Your task to perform on an android device: Open calendar and show me the second week of next month Image 0: 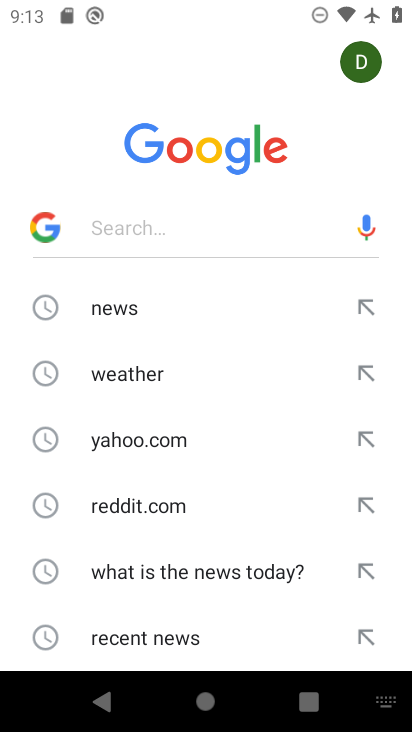
Step 0: press home button
Your task to perform on an android device: Open calendar and show me the second week of next month Image 1: 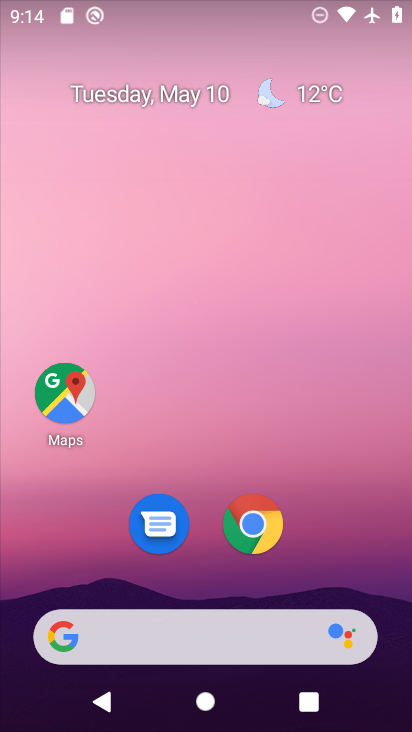
Step 1: drag from (323, 462) to (308, 25)
Your task to perform on an android device: Open calendar and show me the second week of next month Image 2: 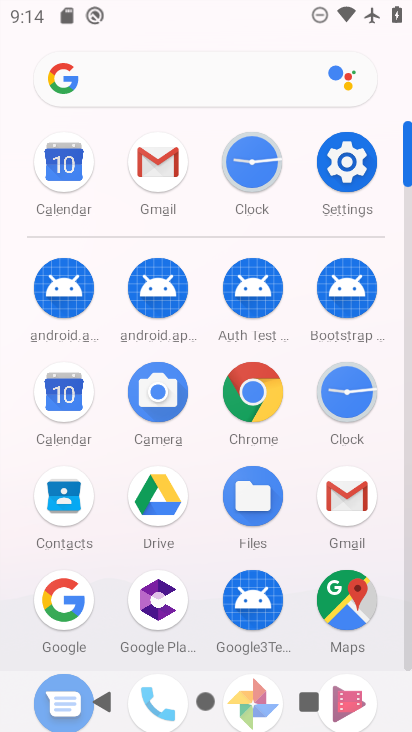
Step 2: click (67, 175)
Your task to perform on an android device: Open calendar and show me the second week of next month Image 3: 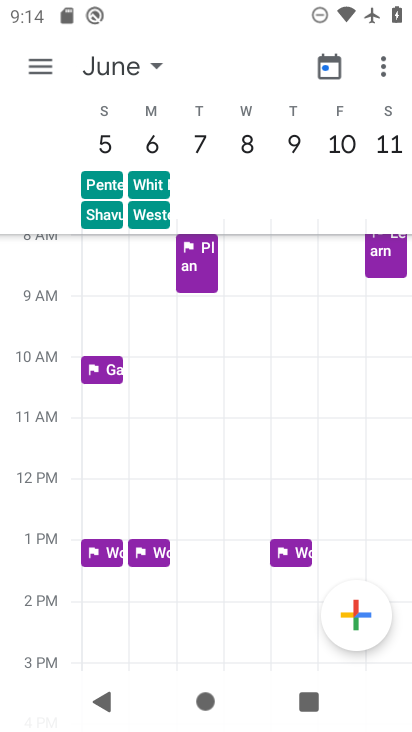
Step 3: task complete